Your task to perform on an android device: Open CNN.com Image 0: 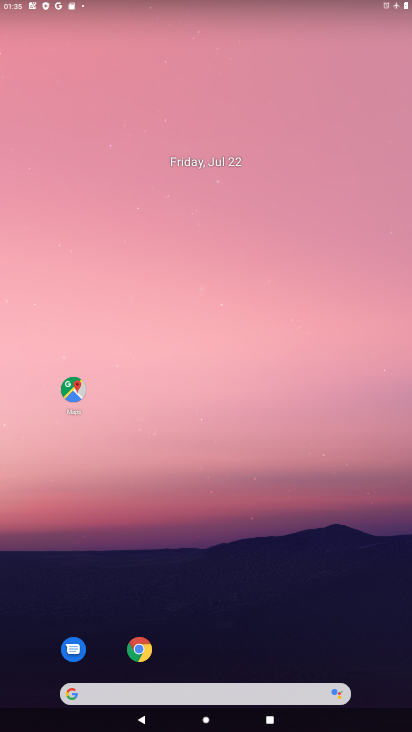
Step 0: drag from (279, 607) to (248, 120)
Your task to perform on an android device: Open CNN.com Image 1: 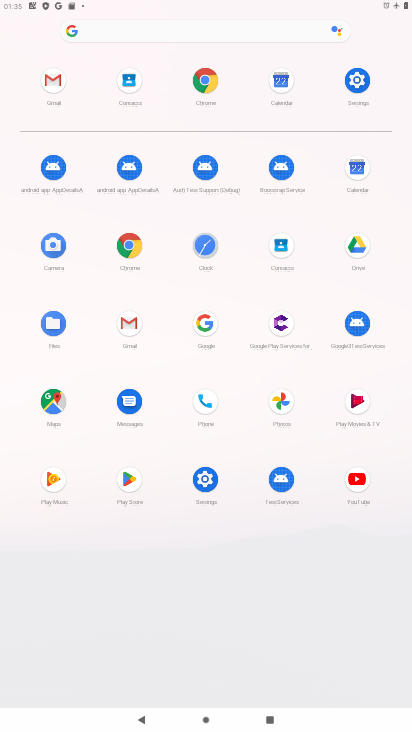
Step 1: click (132, 246)
Your task to perform on an android device: Open CNN.com Image 2: 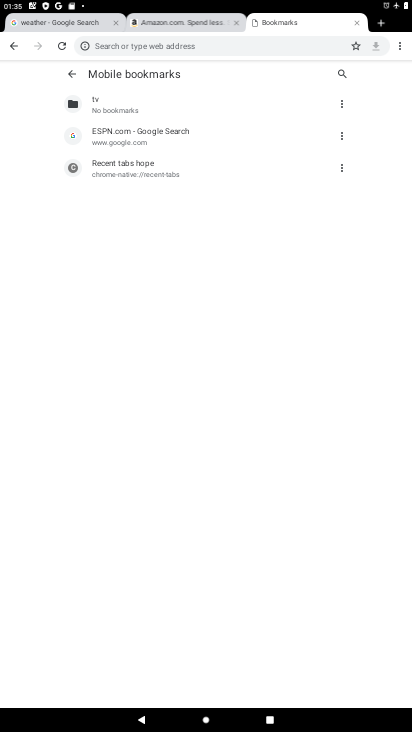
Step 2: click (114, 43)
Your task to perform on an android device: Open CNN.com Image 3: 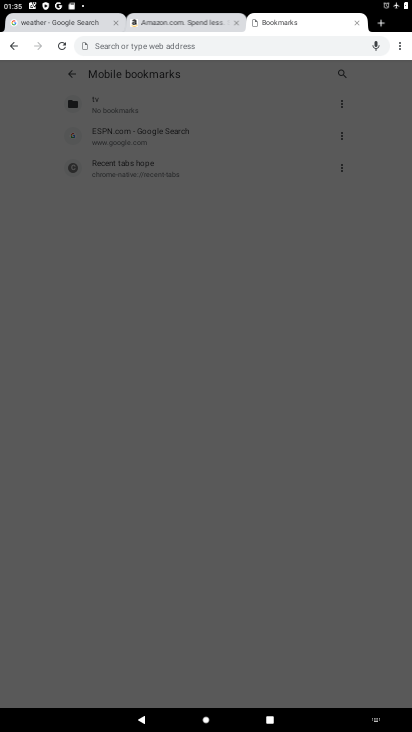
Step 3: type "cnn.com"
Your task to perform on an android device: Open CNN.com Image 4: 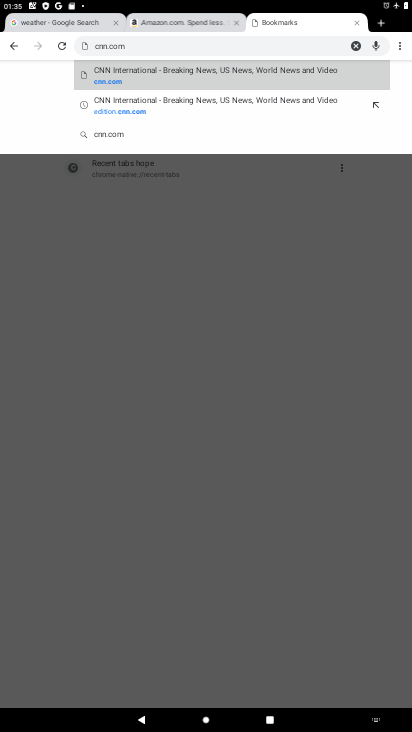
Step 4: click (208, 73)
Your task to perform on an android device: Open CNN.com Image 5: 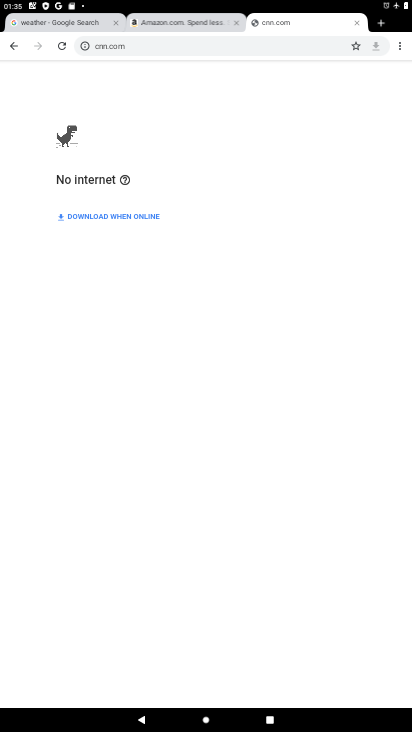
Step 5: task complete